Your task to perform on an android device: Go to settings Image 0: 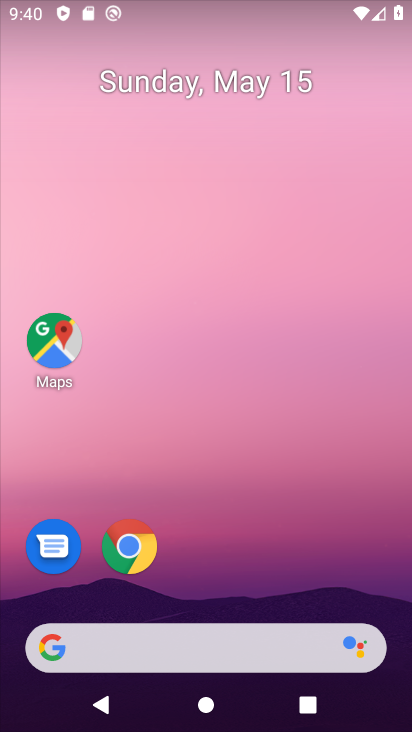
Step 0: drag from (328, 550) to (270, 97)
Your task to perform on an android device: Go to settings Image 1: 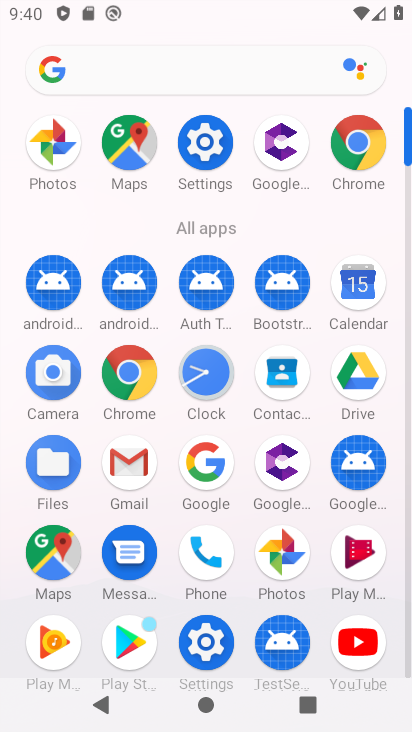
Step 1: click (198, 150)
Your task to perform on an android device: Go to settings Image 2: 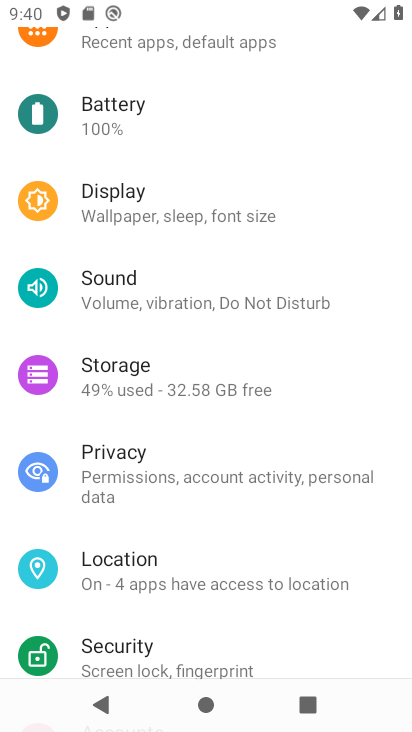
Step 2: task complete